Your task to perform on an android device: Open Chrome and go to settings Image 0: 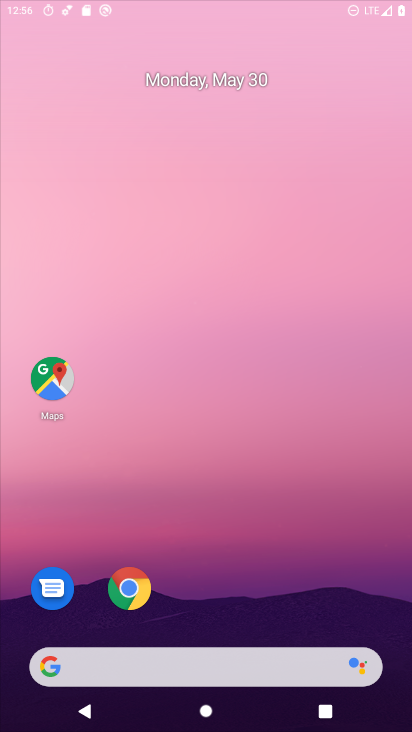
Step 0: click (315, 17)
Your task to perform on an android device: Open Chrome and go to settings Image 1: 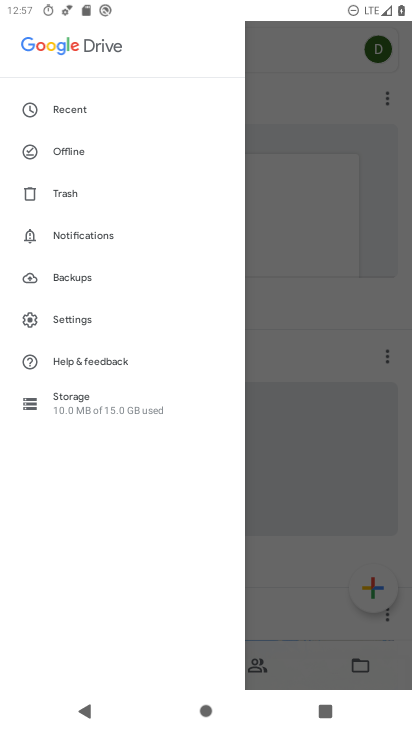
Step 1: press home button
Your task to perform on an android device: Open Chrome and go to settings Image 2: 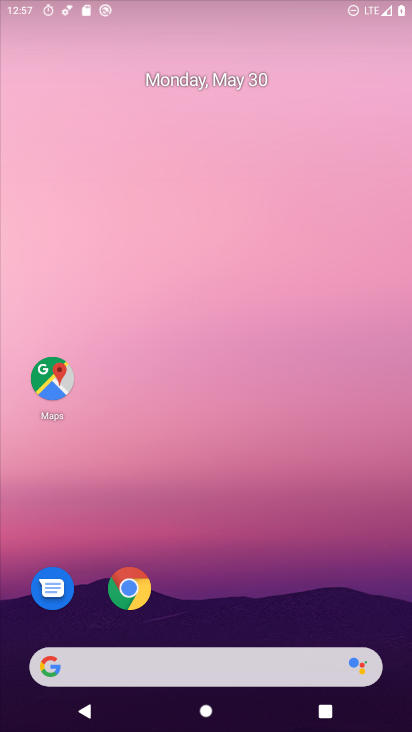
Step 2: drag from (274, 594) to (232, 126)
Your task to perform on an android device: Open Chrome and go to settings Image 3: 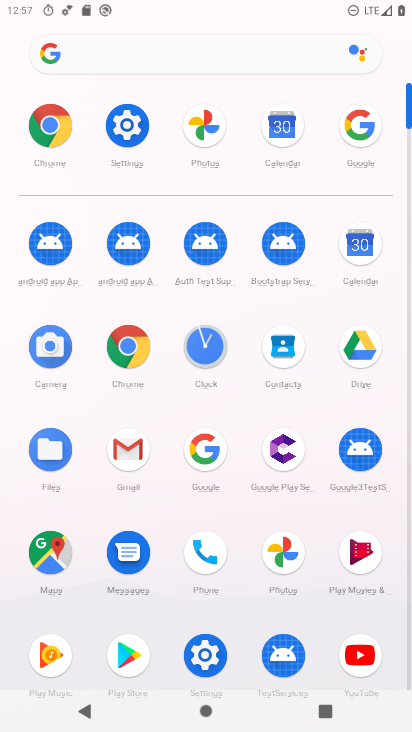
Step 3: click (147, 355)
Your task to perform on an android device: Open Chrome and go to settings Image 4: 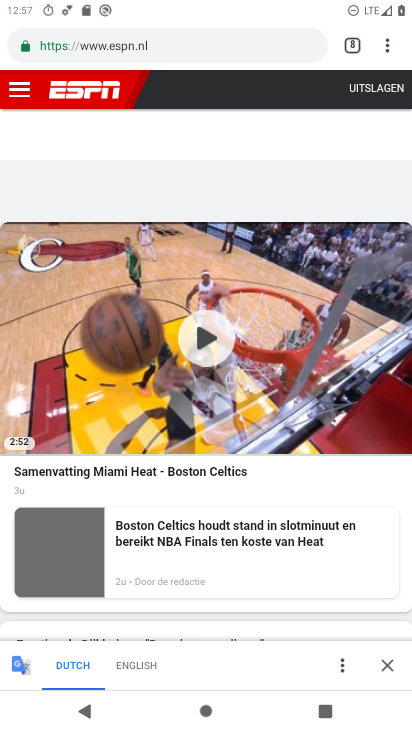
Step 4: click (385, 53)
Your task to perform on an android device: Open Chrome and go to settings Image 5: 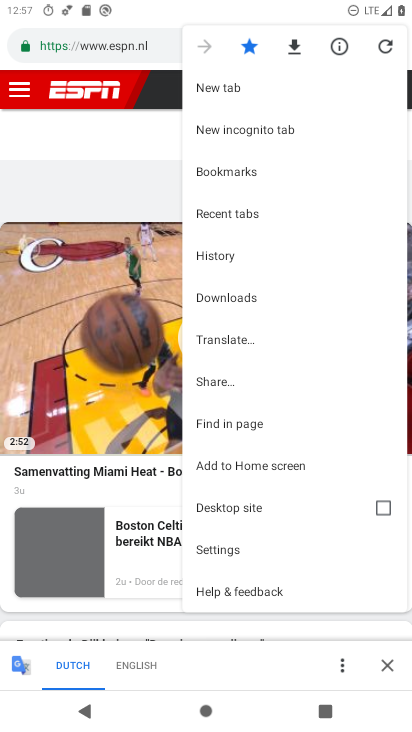
Step 5: click (246, 554)
Your task to perform on an android device: Open Chrome and go to settings Image 6: 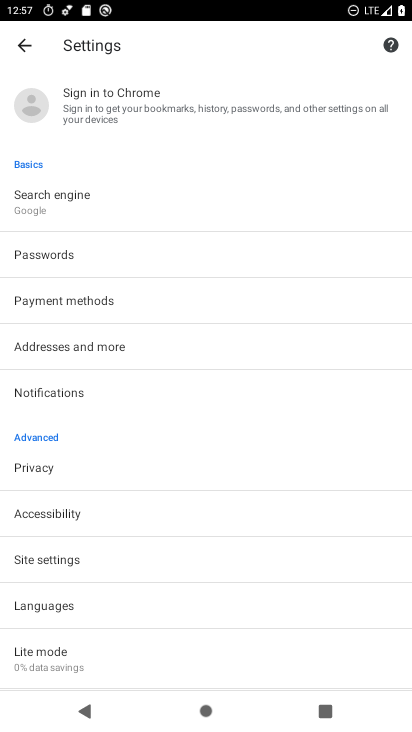
Step 6: task complete